Your task to perform on an android device: change the upload size in google photos Image 0: 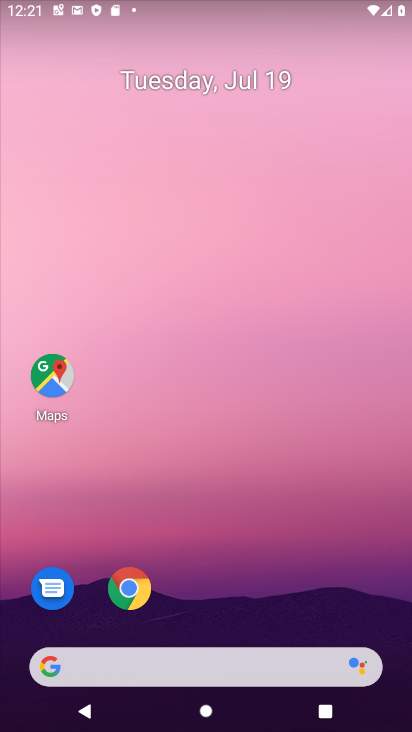
Step 0: drag from (386, 630) to (162, 14)
Your task to perform on an android device: change the upload size in google photos Image 1: 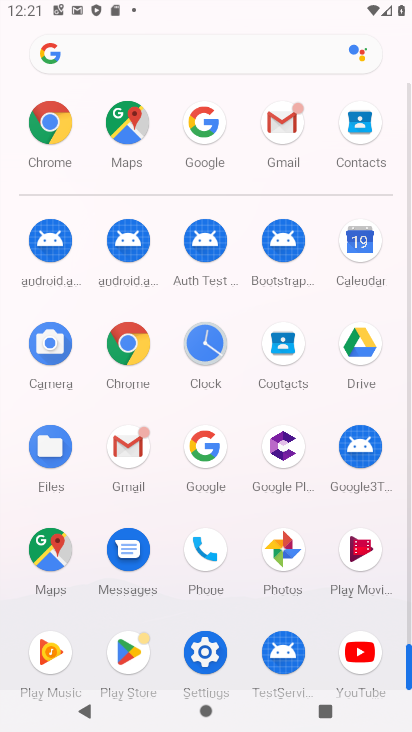
Step 1: click (273, 554)
Your task to perform on an android device: change the upload size in google photos Image 2: 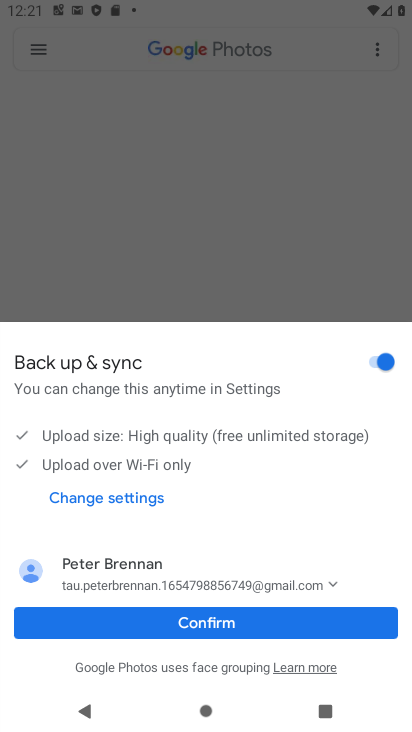
Step 2: click (211, 620)
Your task to perform on an android device: change the upload size in google photos Image 3: 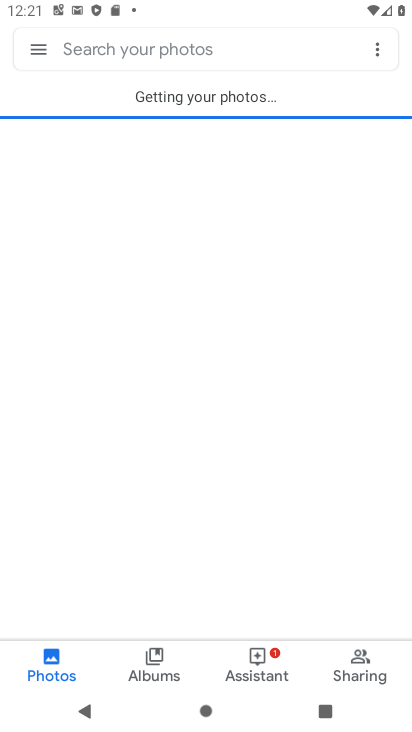
Step 3: click (34, 47)
Your task to perform on an android device: change the upload size in google photos Image 4: 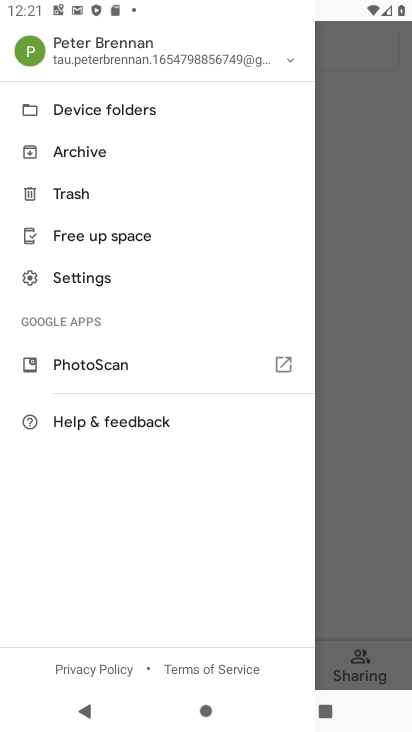
Step 4: click (76, 270)
Your task to perform on an android device: change the upload size in google photos Image 5: 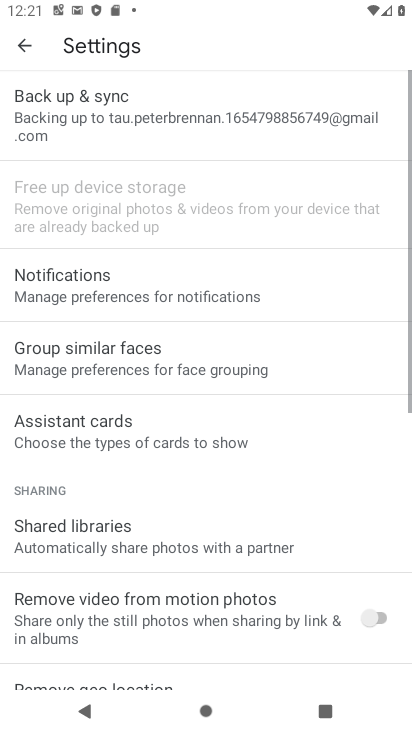
Step 5: click (115, 113)
Your task to perform on an android device: change the upload size in google photos Image 6: 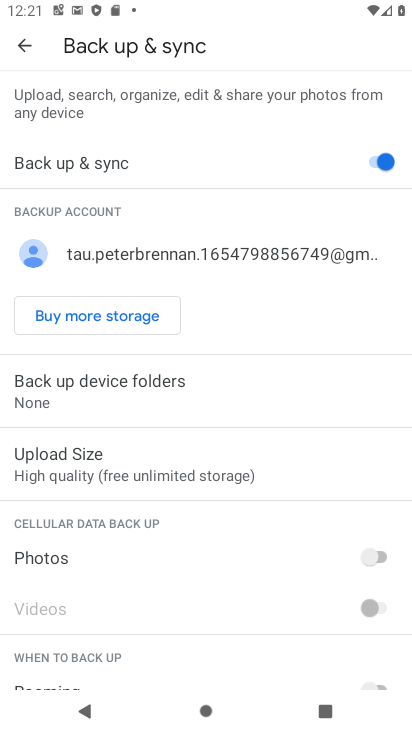
Step 6: click (105, 464)
Your task to perform on an android device: change the upload size in google photos Image 7: 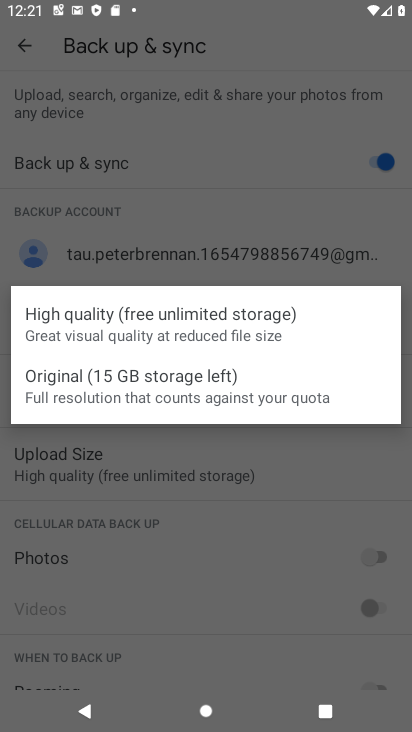
Step 7: click (134, 398)
Your task to perform on an android device: change the upload size in google photos Image 8: 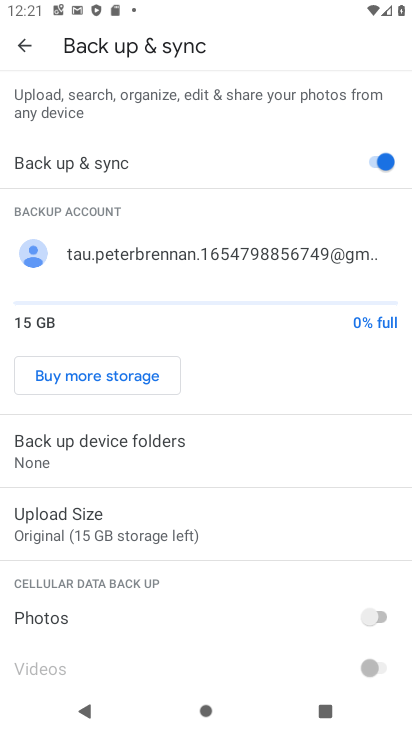
Step 8: task complete